Your task to perform on an android device: delete location history Image 0: 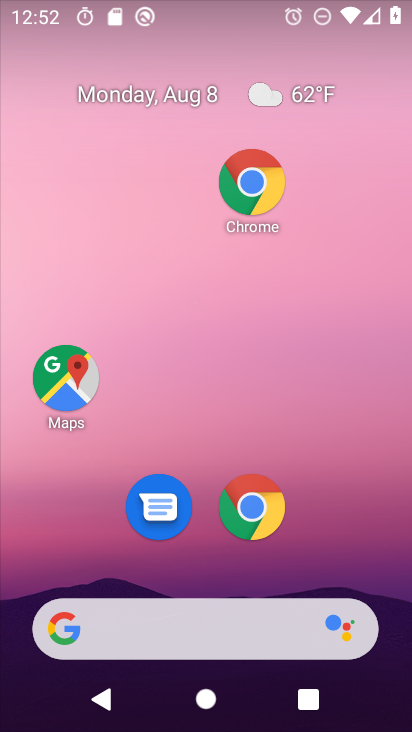
Step 0: drag from (359, 525) to (267, 76)
Your task to perform on an android device: delete location history Image 1: 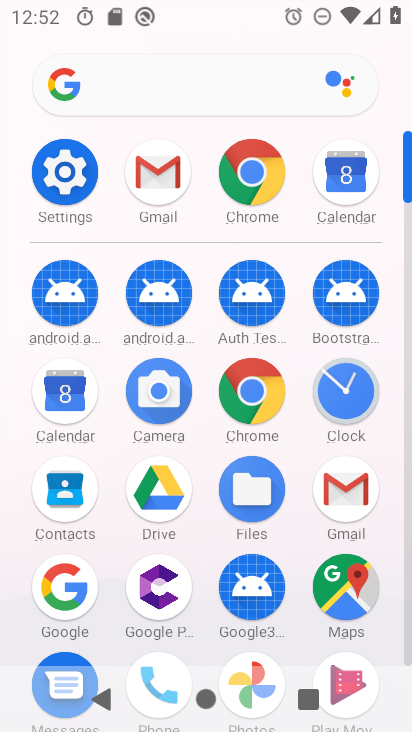
Step 1: click (257, 397)
Your task to perform on an android device: delete location history Image 2: 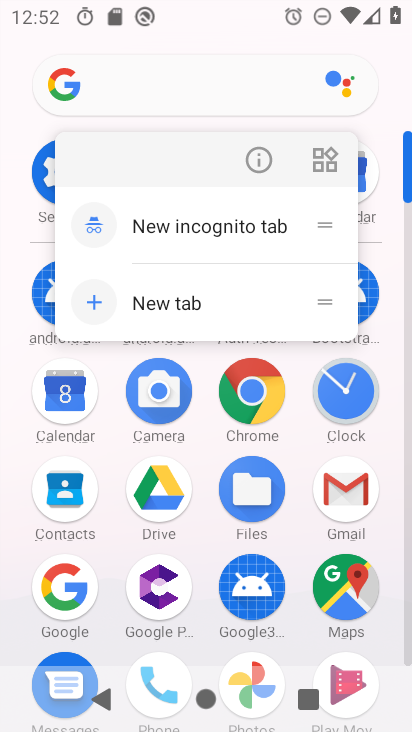
Step 2: click (343, 585)
Your task to perform on an android device: delete location history Image 3: 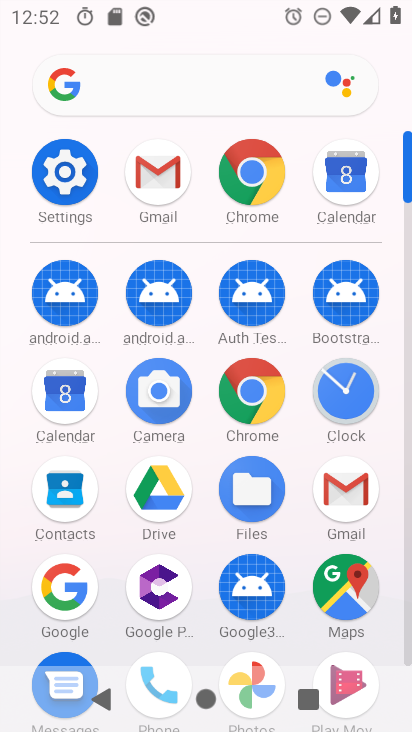
Step 3: click (349, 578)
Your task to perform on an android device: delete location history Image 4: 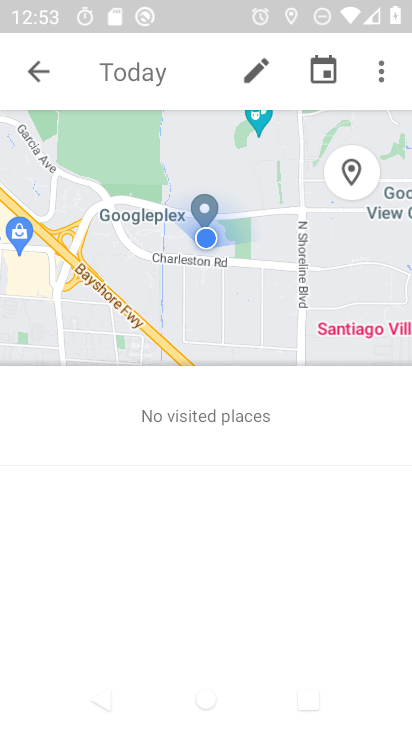
Step 4: click (38, 54)
Your task to perform on an android device: delete location history Image 5: 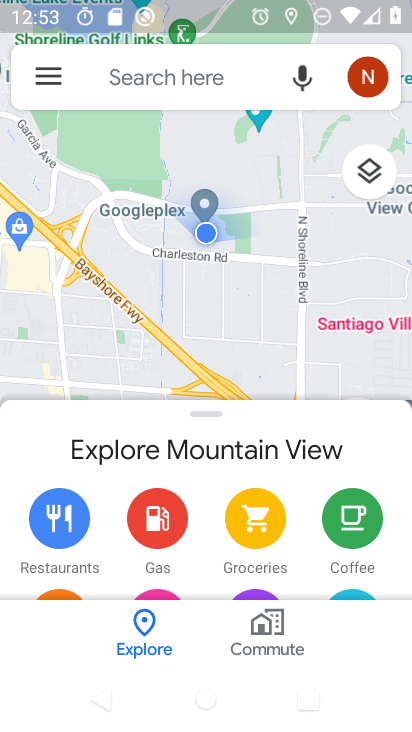
Step 5: click (41, 85)
Your task to perform on an android device: delete location history Image 6: 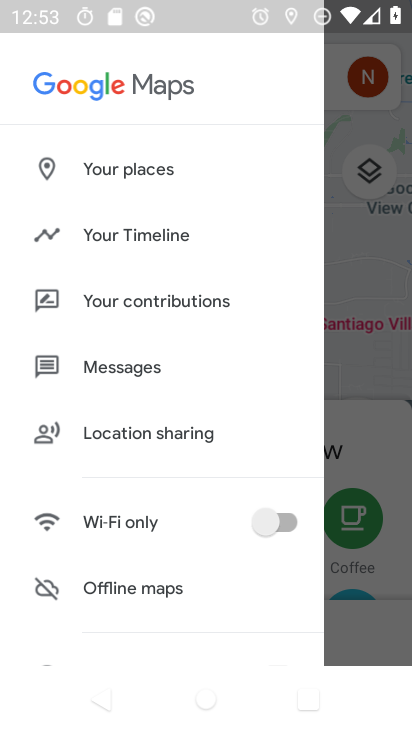
Step 6: drag from (149, 594) to (146, 100)
Your task to perform on an android device: delete location history Image 7: 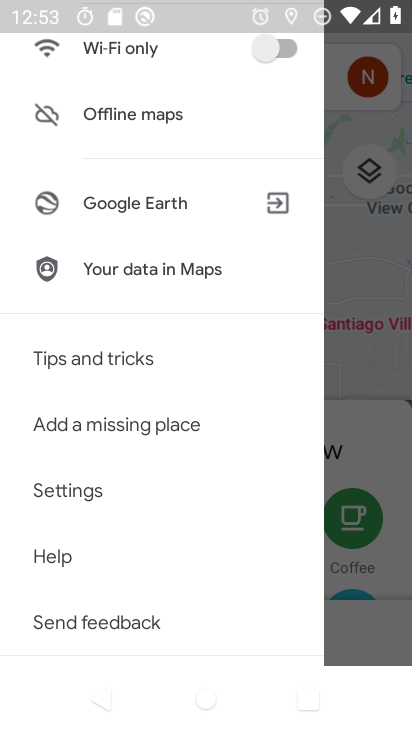
Step 7: click (60, 500)
Your task to perform on an android device: delete location history Image 8: 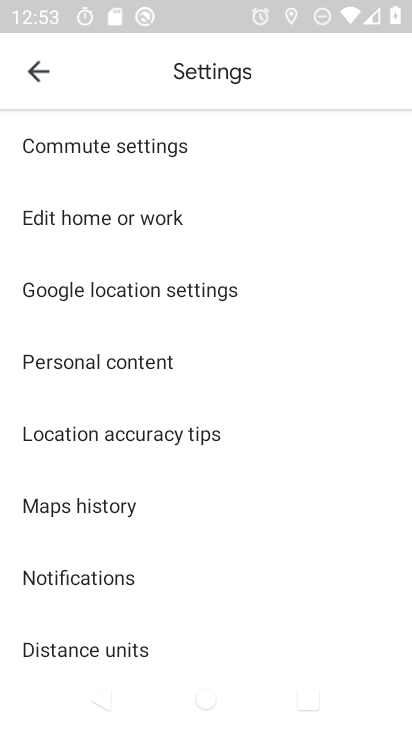
Step 8: click (103, 507)
Your task to perform on an android device: delete location history Image 9: 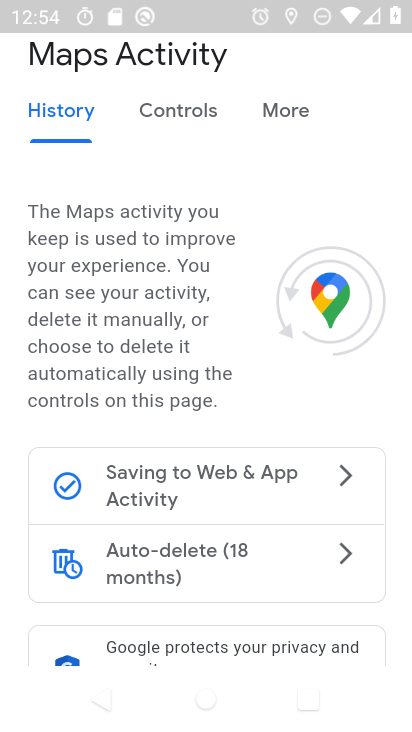
Step 9: drag from (254, 594) to (267, 165)
Your task to perform on an android device: delete location history Image 10: 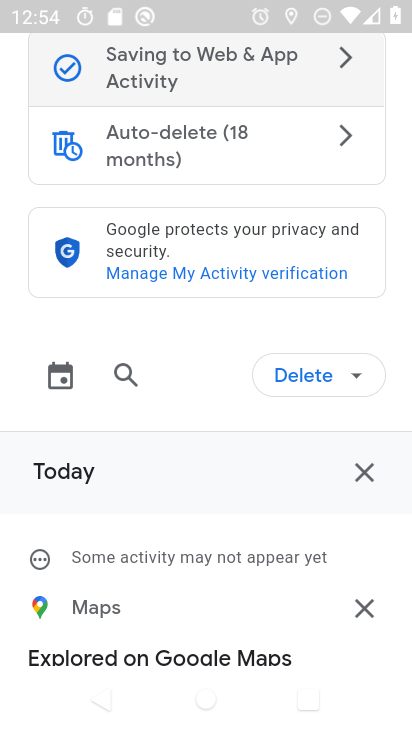
Step 10: click (323, 375)
Your task to perform on an android device: delete location history Image 11: 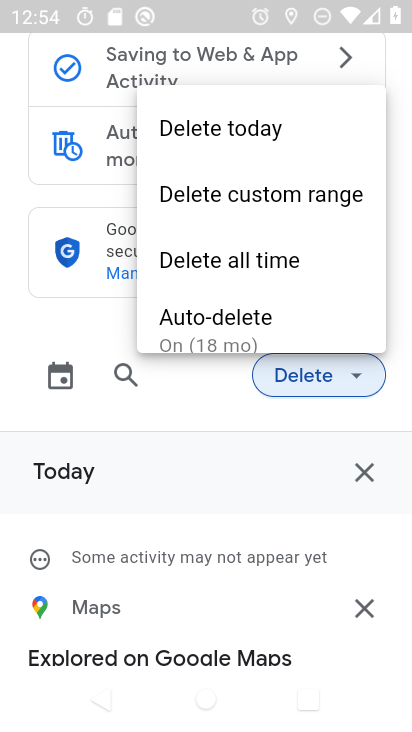
Step 11: click (265, 251)
Your task to perform on an android device: delete location history Image 12: 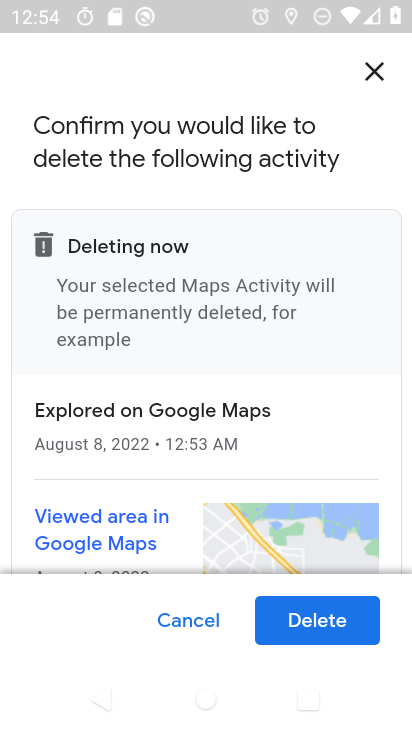
Step 12: click (317, 623)
Your task to perform on an android device: delete location history Image 13: 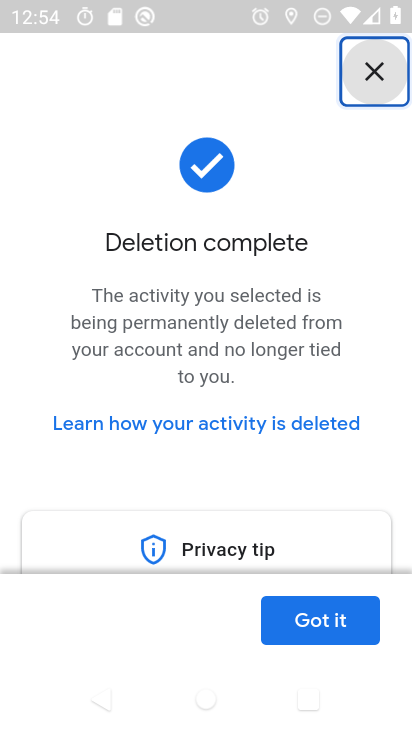
Step 13: click (317, 623)
Your task to perform on an android device: delete location history Image 14: 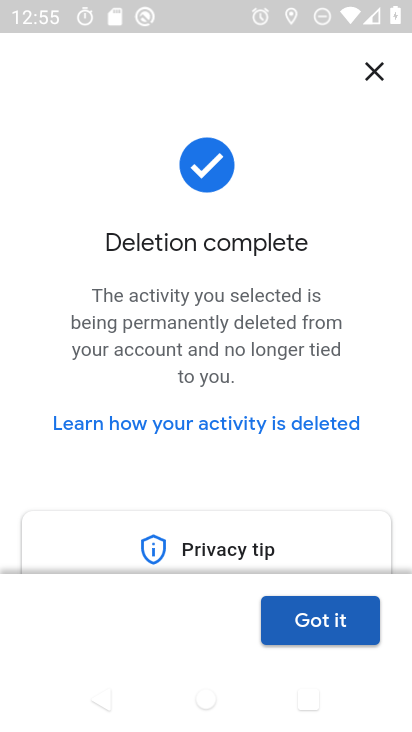
Step 14: click (301, 621)
Your task to perform on an android device: delete location history Image 15: 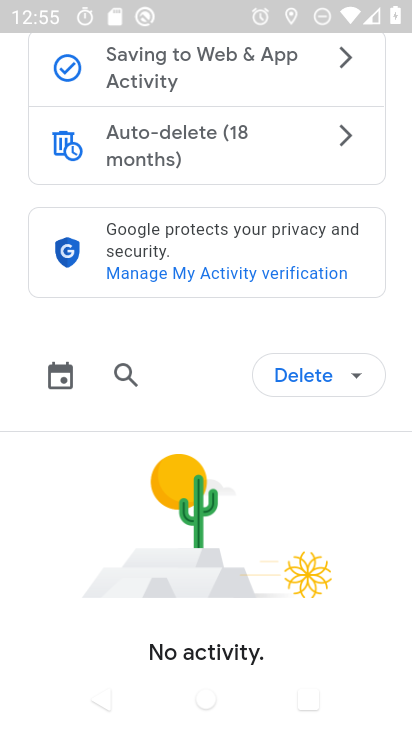
Step 15: task complete